Your task to perform on an android device: change the clock display to analog Image 0: 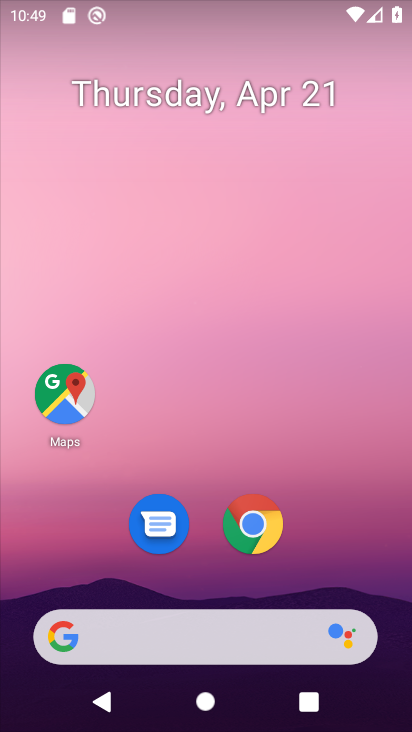
Step 0: drag from (349, 519) to (324, 65)
Your task to perform on an android device: change the clock display to analog Image 1: 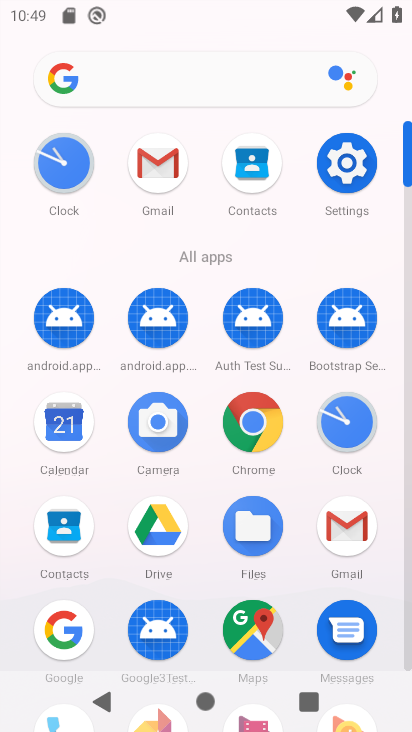
Step 1: click (339, 429)
Your task to perform on an android device: change the clock display to analog Image 2: 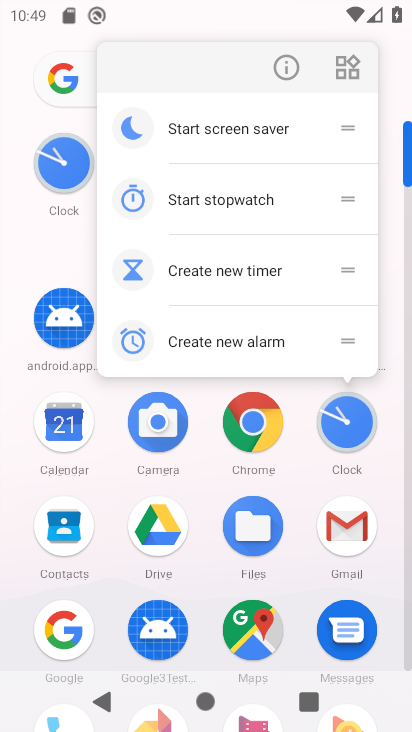
Step 2: click (339, 431)
Your task to perform on an android device: change the clock display to analog Image 3: 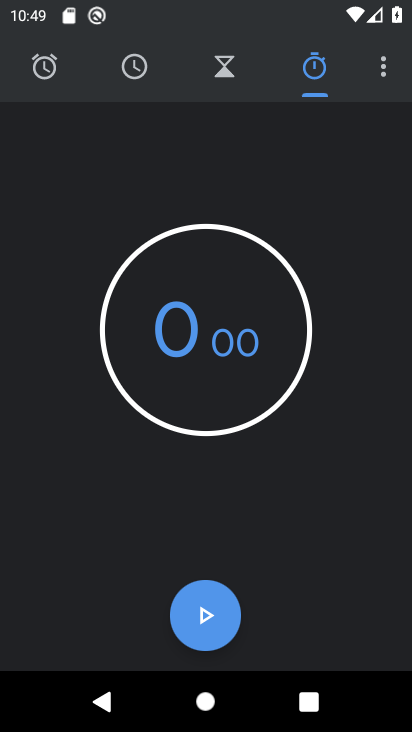
Step 3: click (386, 71)
Your task to perform on an android device: change the clock display to analog Image 4: 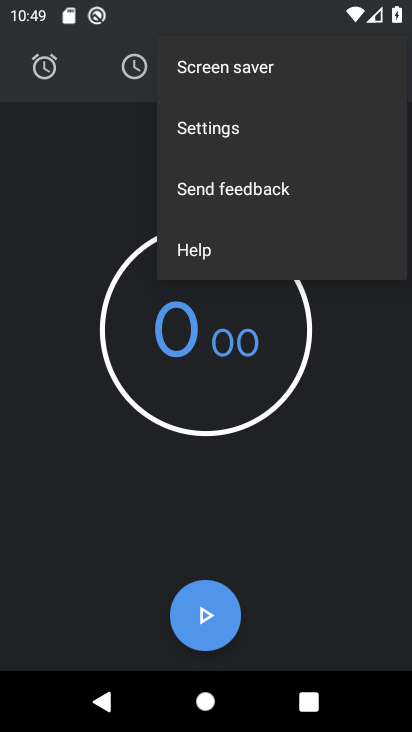
Step 4: click (326, 119)
Your task to perform on an android device: change the clock display to analog Image 5: 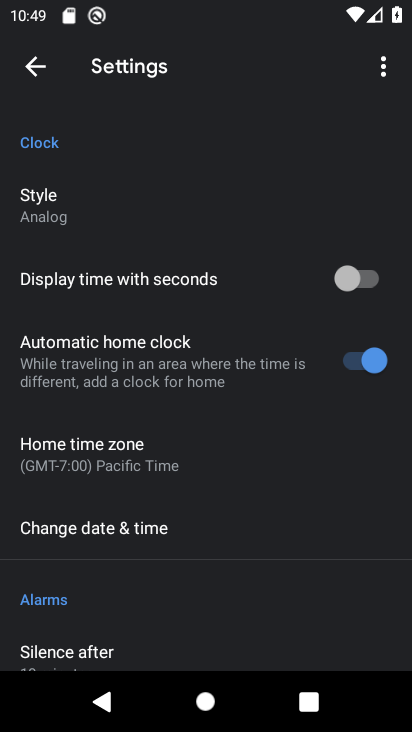
Step 5: task complete